Your task to perform on an android device: Go to CNN.com Image 0: 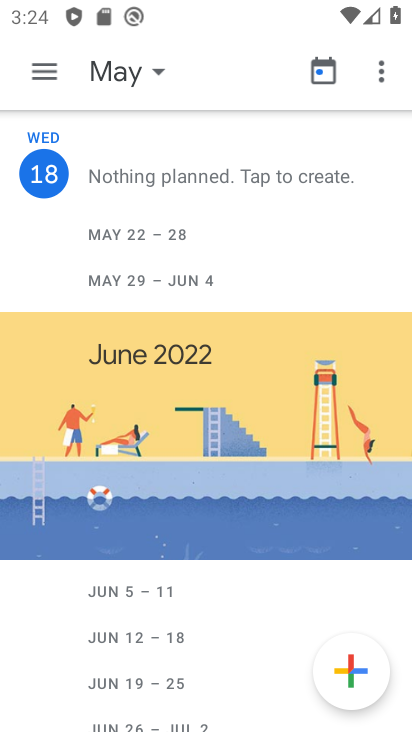
Step 0: drag from (85, 612) to (176, 153)
Your task to perform on an android device: Go to CNN.com Image 1: 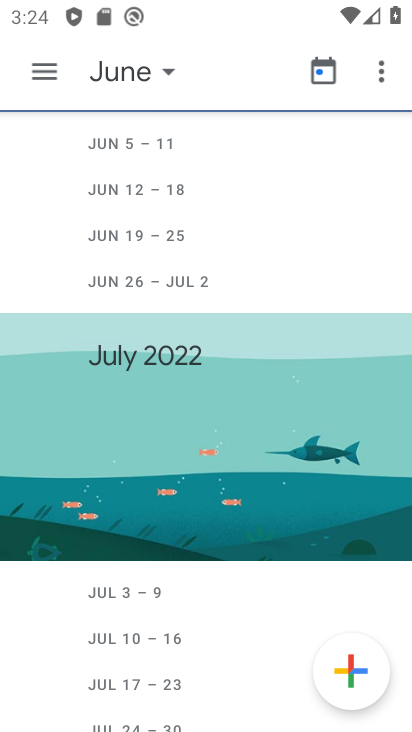
Step 1: press back button
Your task to perform on an android device: Go to CNN.com Image 2: 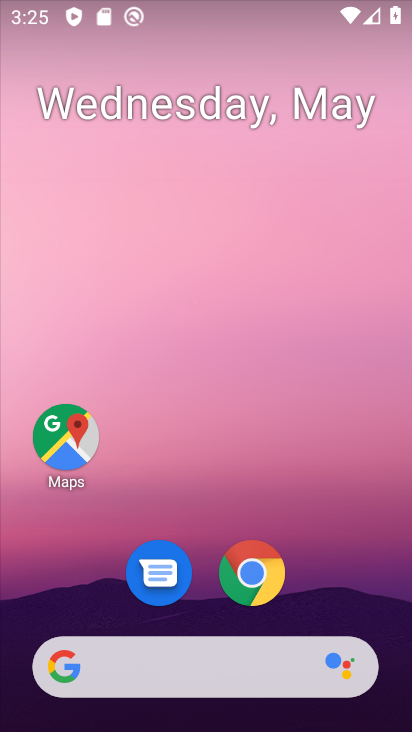
Step 2: click (255, 577)
Your task to perform on an android device: Go to CNN.com Image 3: 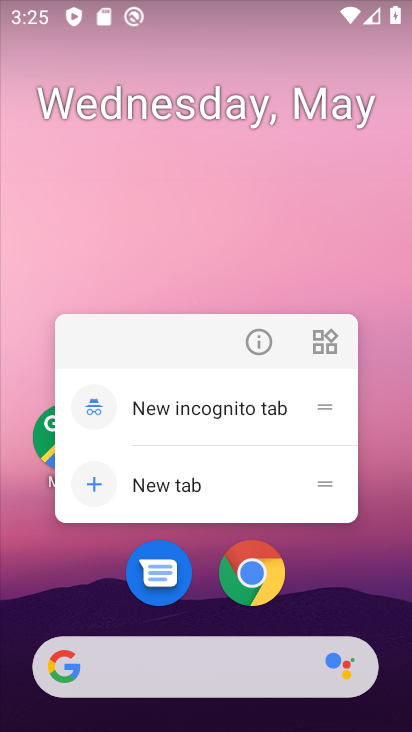
Step 3: click (255, 575)
Your task to perform on an android device: Go to CNN.com Image 4: 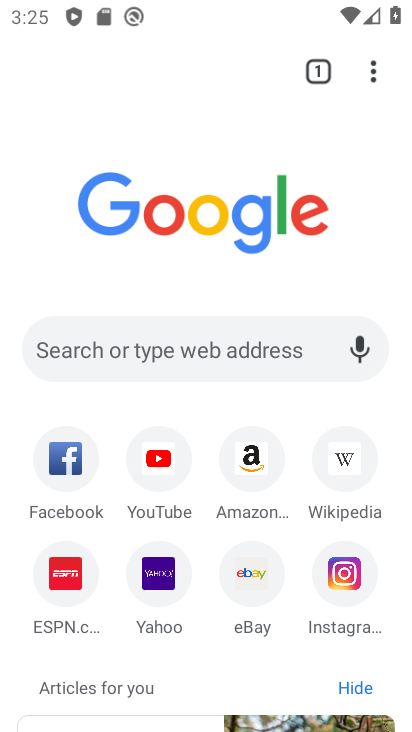
Step 4: click (166, 359)
Your task to perform on an android device: Go to CNN.com Image 5: 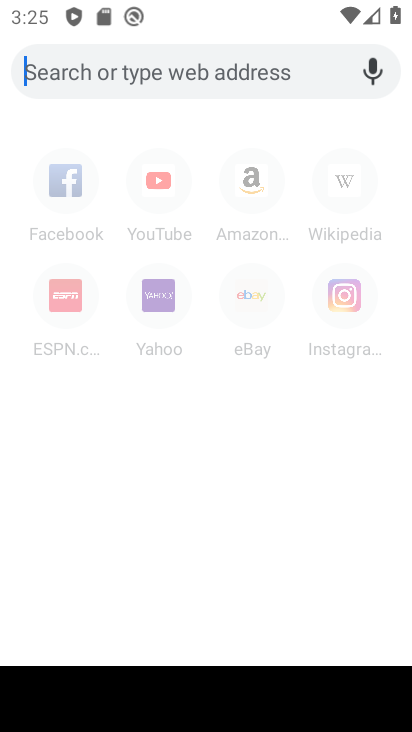
Step 5: type "CNN.com"
Your task to perform on an android device: Go to CNN.com Image 6: 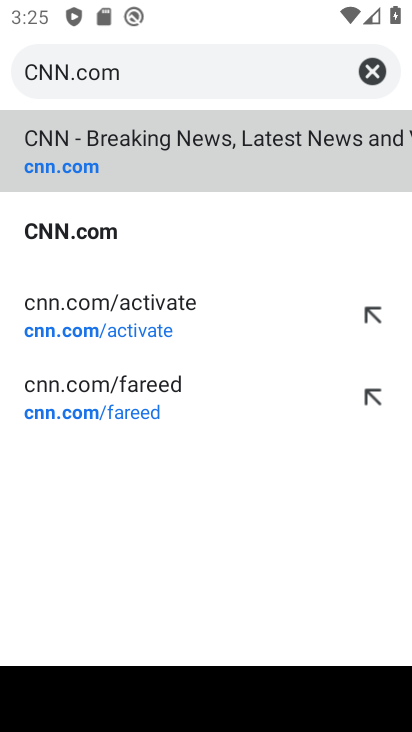
Step 6: click (126, 235)
Your task to perform on an android device: Go to CNN.com Image 7: 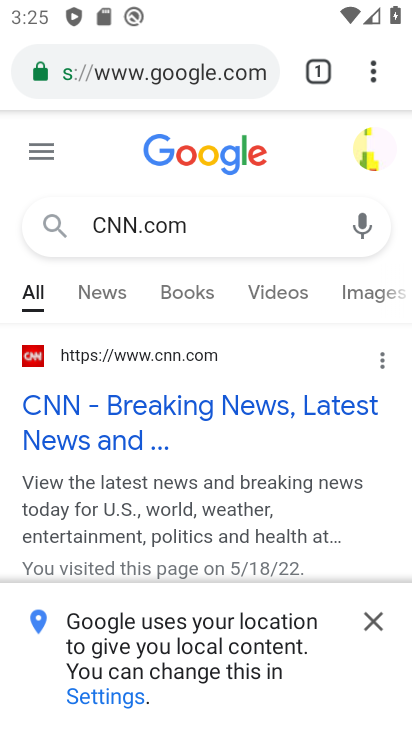
Step 7: click (88, 452)
Your task to perform on an android device: Go to CNN.com Image 8: 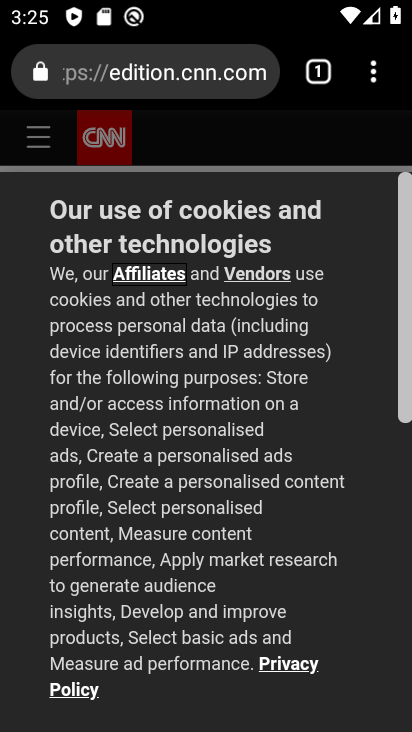
Step 8: drag from (127, 598) to (231, 198)
Your task to perform on an android device: Go to CNN.com Image 9: 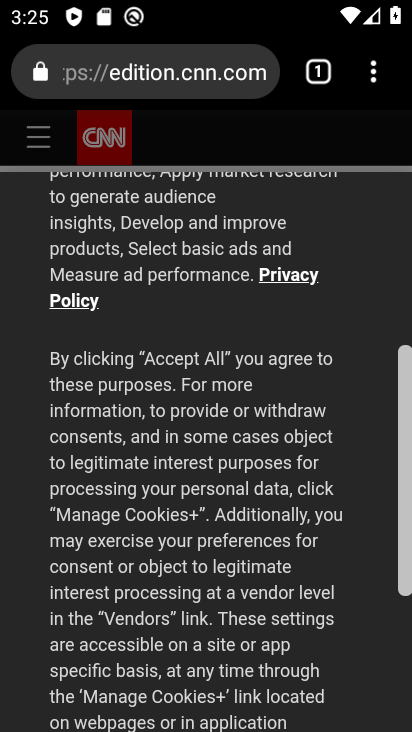
Step 9: drag from (183, 583) to (285, 240)
Your task to perform on an android device: Go to CNN.com Image 10: 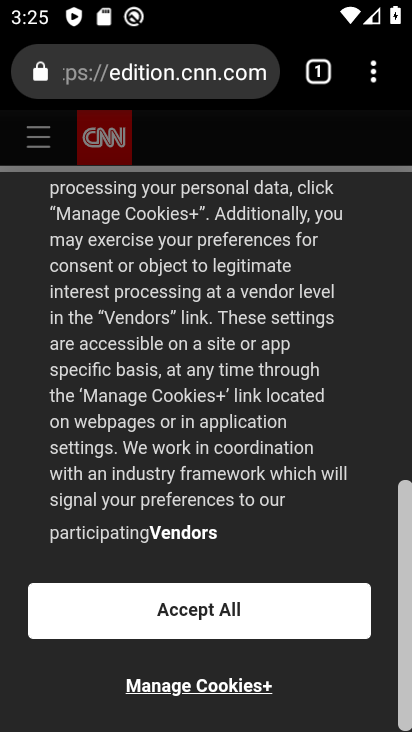
Step 10: click (232, 613)
Your task to perform on an android device: Go to CNN.com Image 11: 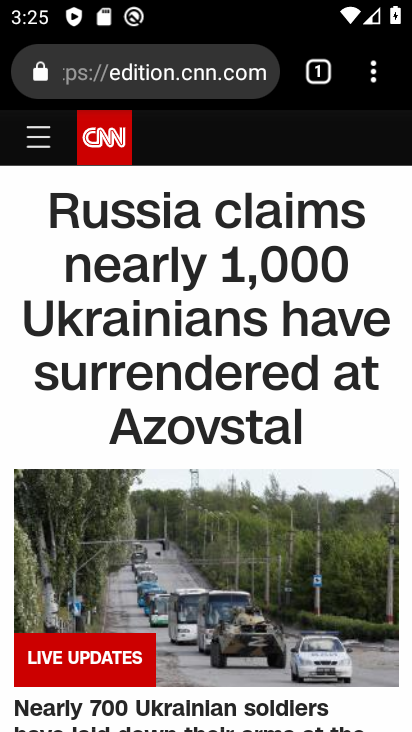
Step 11: task complete